Your task to perform on an android device: Go to Yahoo.com Image 0: 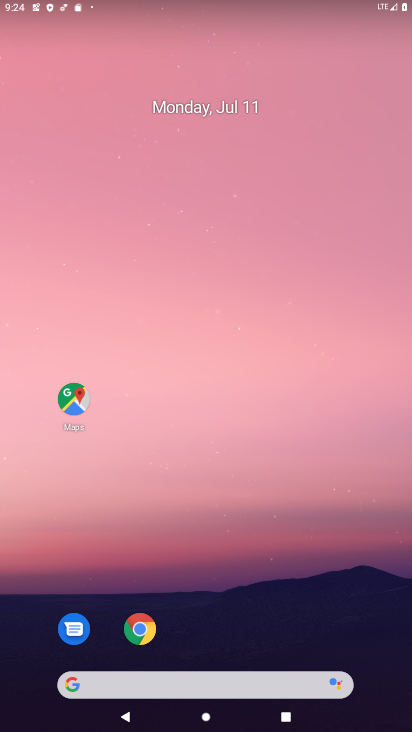
Step 0: click (104, 680)
Your task to perform on an android device: Go to Yahoo.com Image 1: 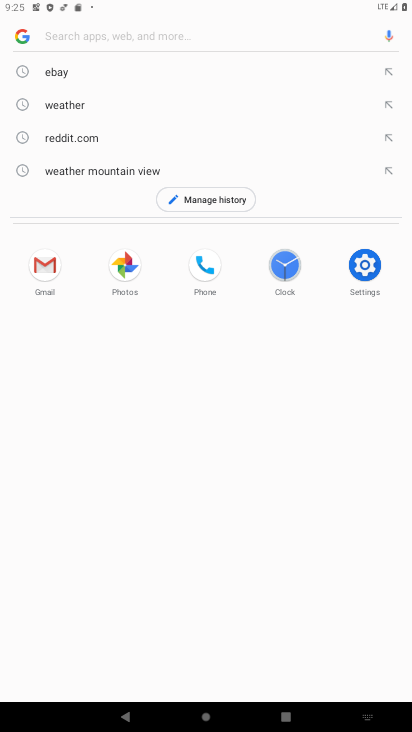
Step 1: type "Yahoo.com"
Your task to perform on an android device: Go to Yahoo.com Image 2: 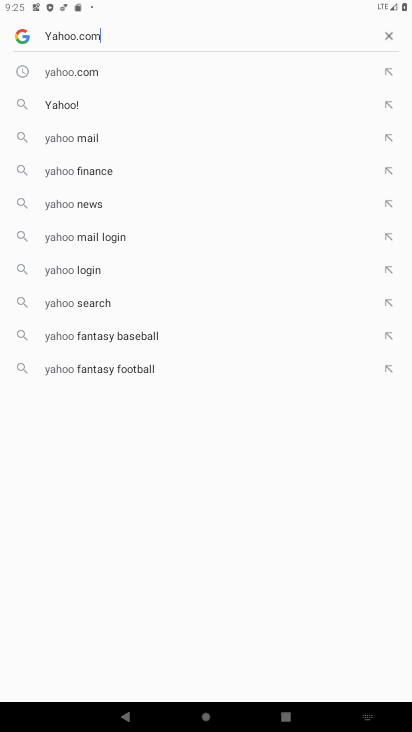
Step 2: type ""
Your task to perform on an android device: Go to Yahoo.com Image 3: 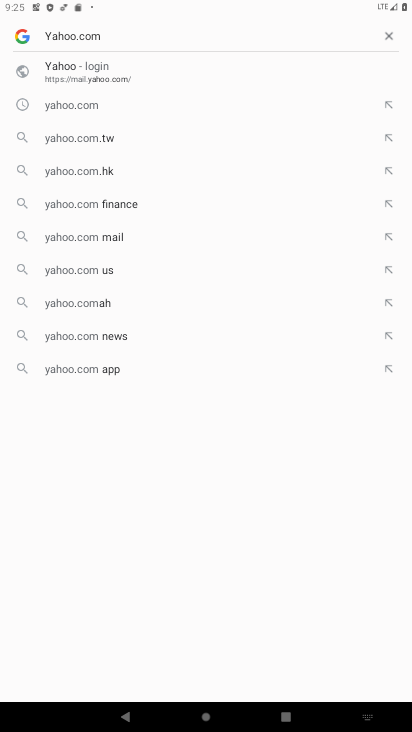
Step 3: type ""
Your task to perform on an android device: Go to Yahoo.com Image 4: 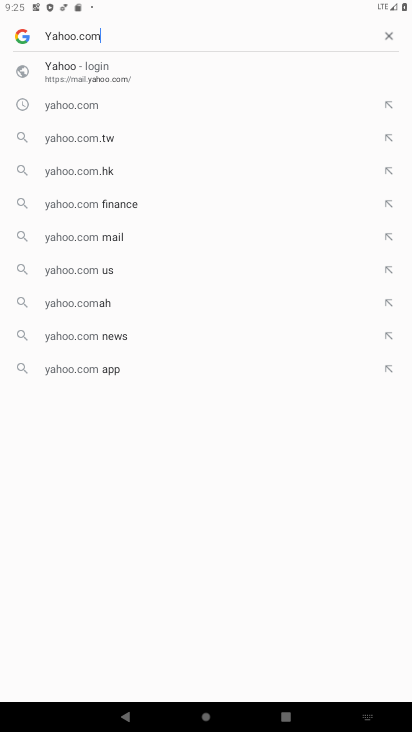
Step 4: type ""
Your task to perform on an android device: Go to Yahoo.com Image 5: 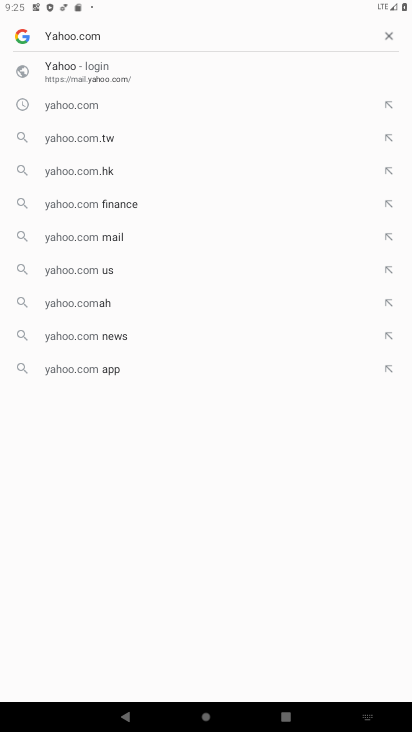
Step 5: click (52, 107)
Your task to perform on an android device: Go to Yahoo.com Image 6: 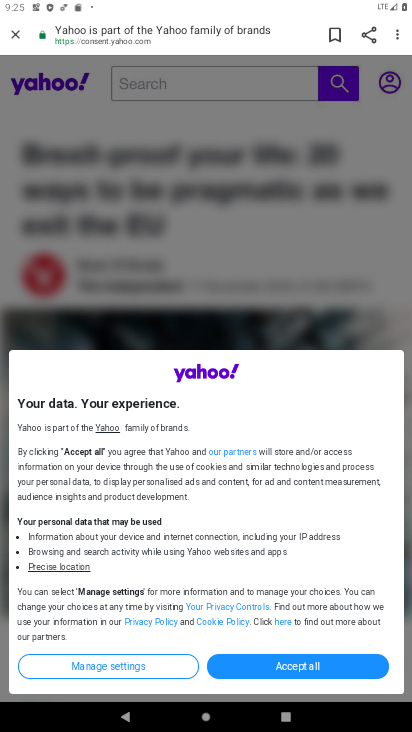
Step 6: task complete